Your task to perform on an android device: Do I have any events today? Image 0: 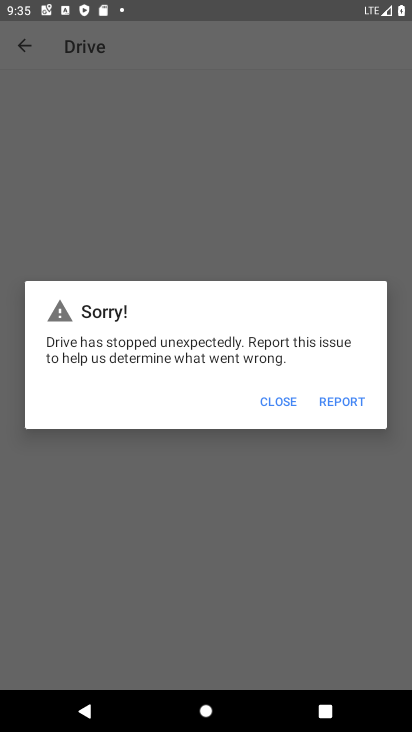
Step 0: press home button
Your task to perform on an android device: Do I have any events today? Image 1: 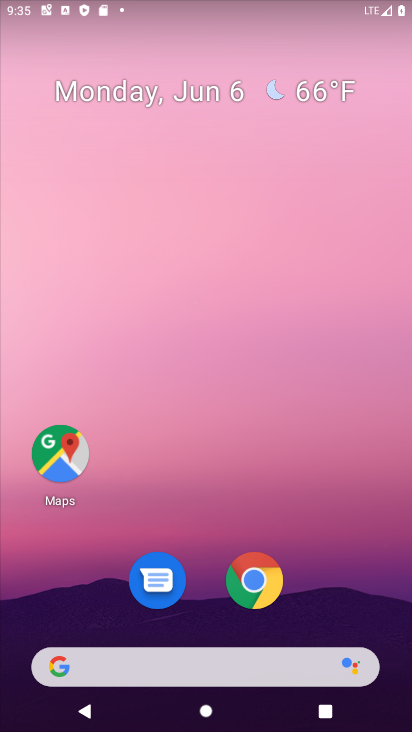
Step 1: drag from (364, 565) to (6, 373)
Your task to perform on an android device: Do I have any events today? Image 2: 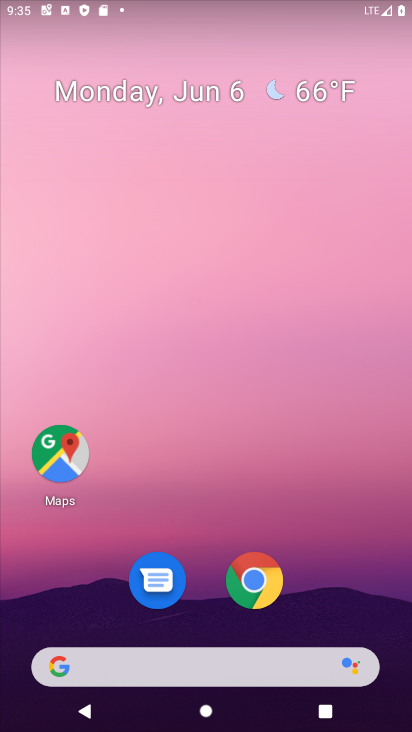
Step 2: drag from (333, 591) to (236, 30)
Your task to perform on an android device: Do I have any events today? Image 3: 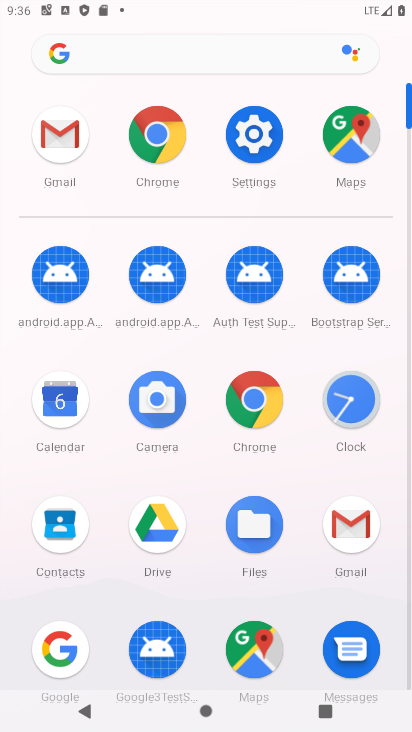
Step 3: click (53, 419)
Your task to perform on an android device: Do I have any events today? Image 4: 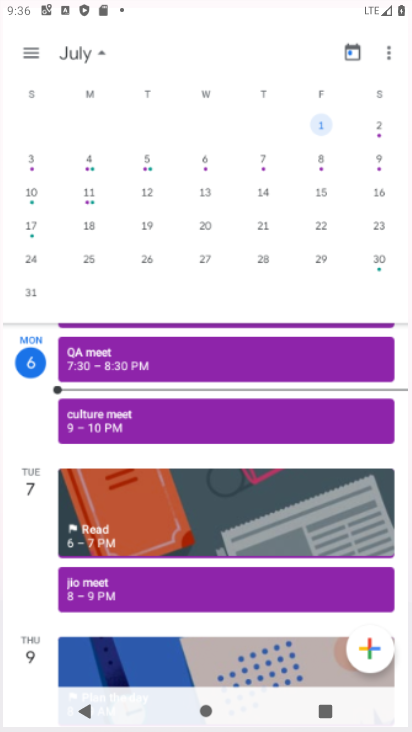
Step 4: click (53, 419)
Your task to perform on an android device: Do I have any events today? Image 5: 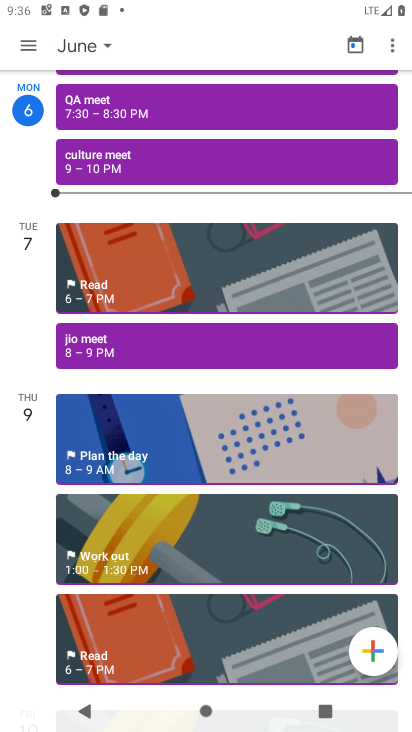
Step 5: click (73, 50)
Your task to perform on an android device: Do I have any events today? Image 6: 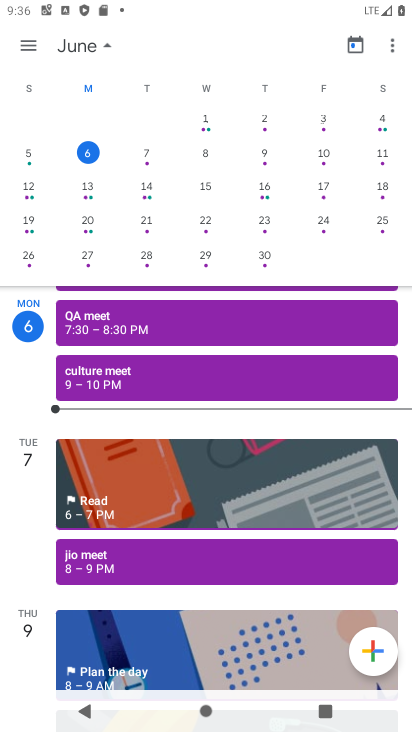
Step 6: task complete